Your task to perform on an android device: turn off airplane mode Image 0: 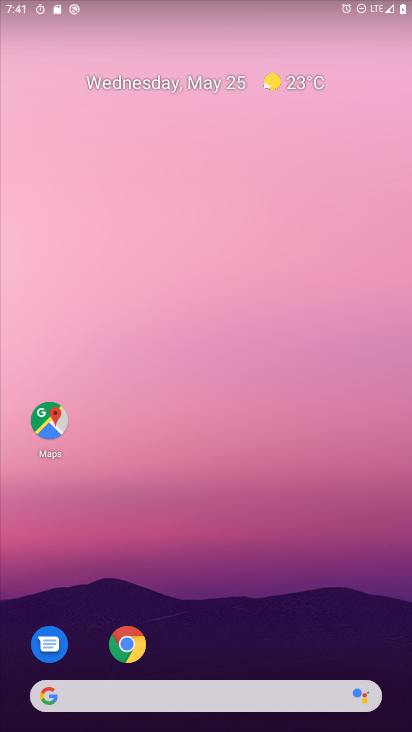
Step 0: drag from (372, 641) to (330, 51)
Your task to perform on an android device: turn off airplane mode Image 1: 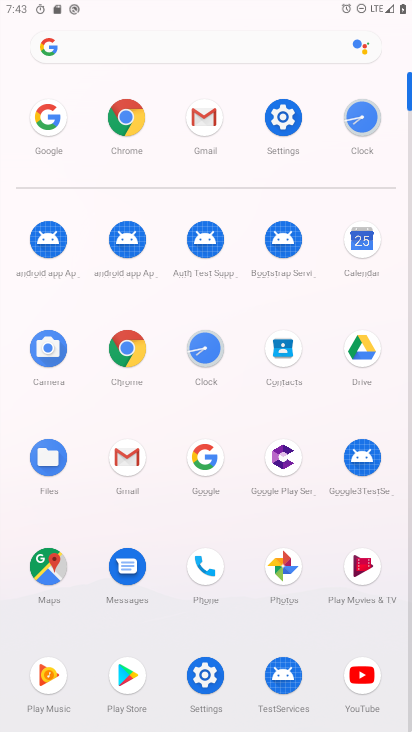
Step 1: task complete